Your task to perform on an android device: uninstall "Move to iOS" Image 0: 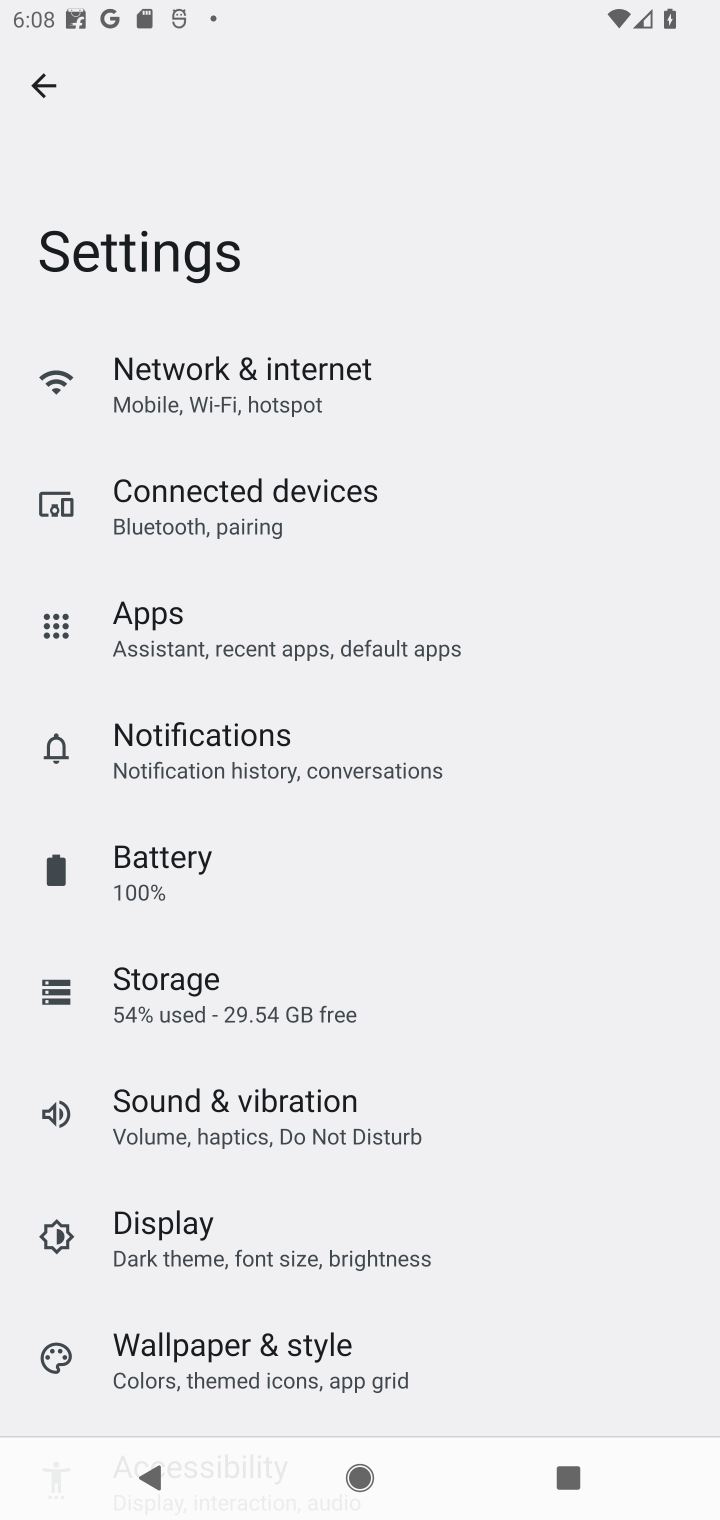
Step 0: press home button
Your task to perform on an android device: uninstall "Move to iOS" Image 1: 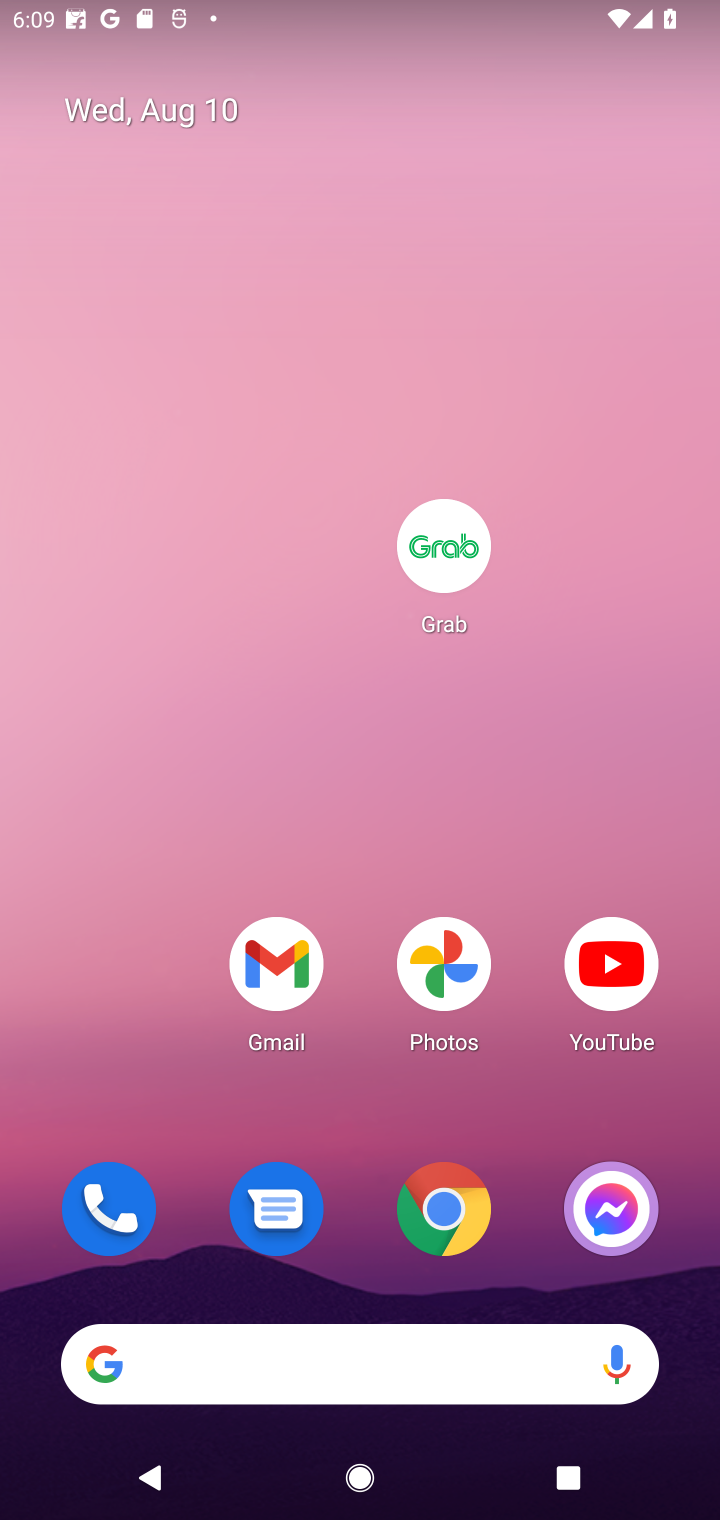
Step 1: drag from (513, 1312) to (267, 6)
Your task to perform on an android device: uninstall "Move to iOS" Image 2: 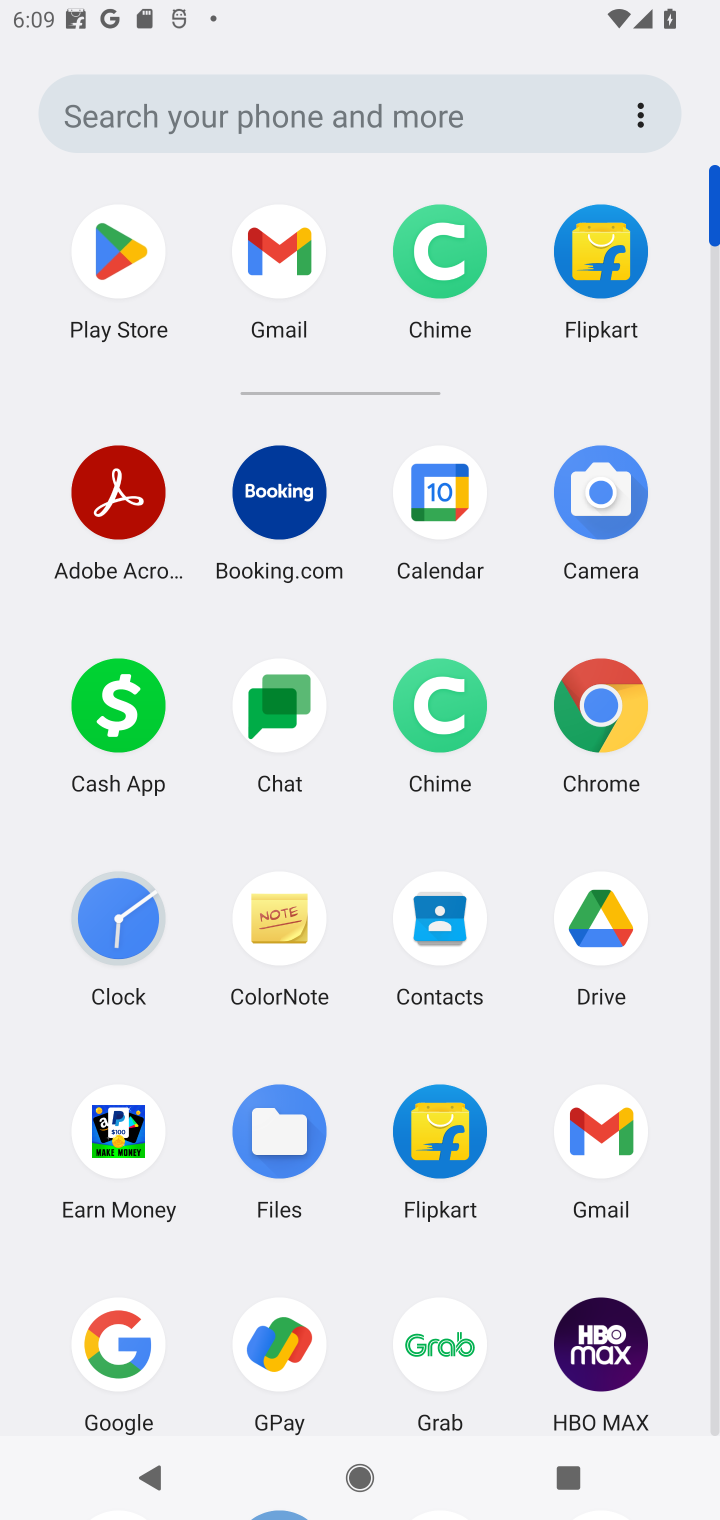
Step 2: click (111, 284)
Your task to perform on an android device: uninstall "Move to iOS" Image 3: 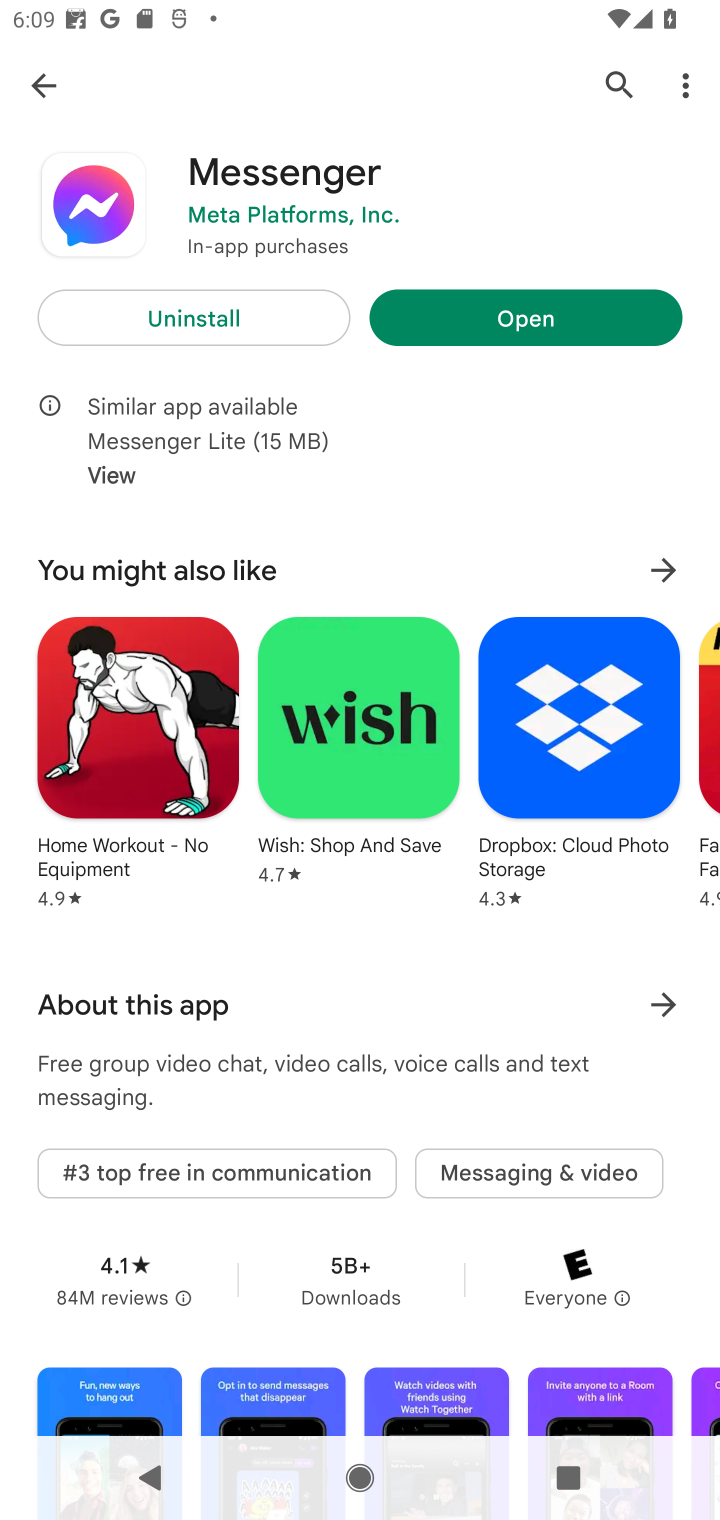
Step 3: click (627, 91)
Your task to perform on an android device: uninstall "Move to iOS" Image 4: 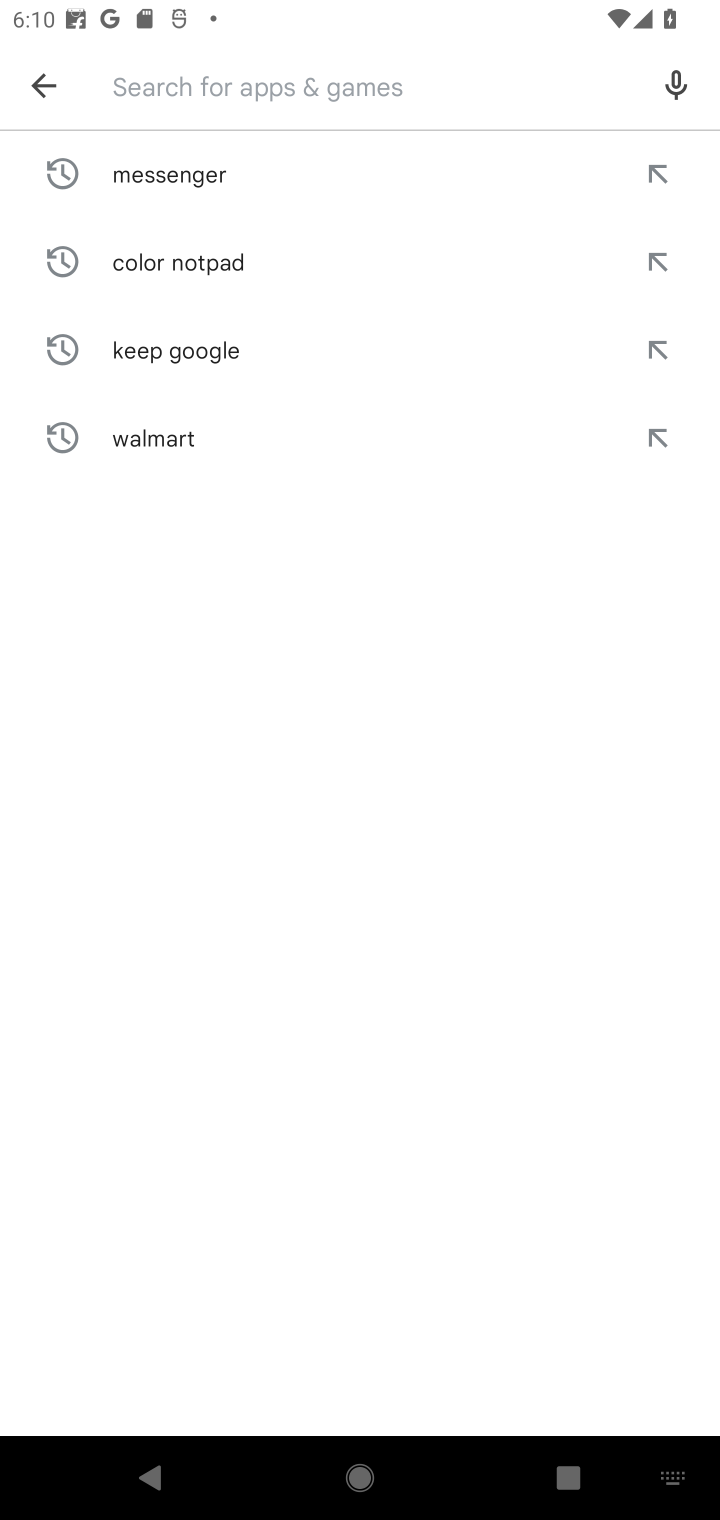
Step 4: type "move to os"
Your task to perform on an android device: uninstall "Move to iOS" Image 5: 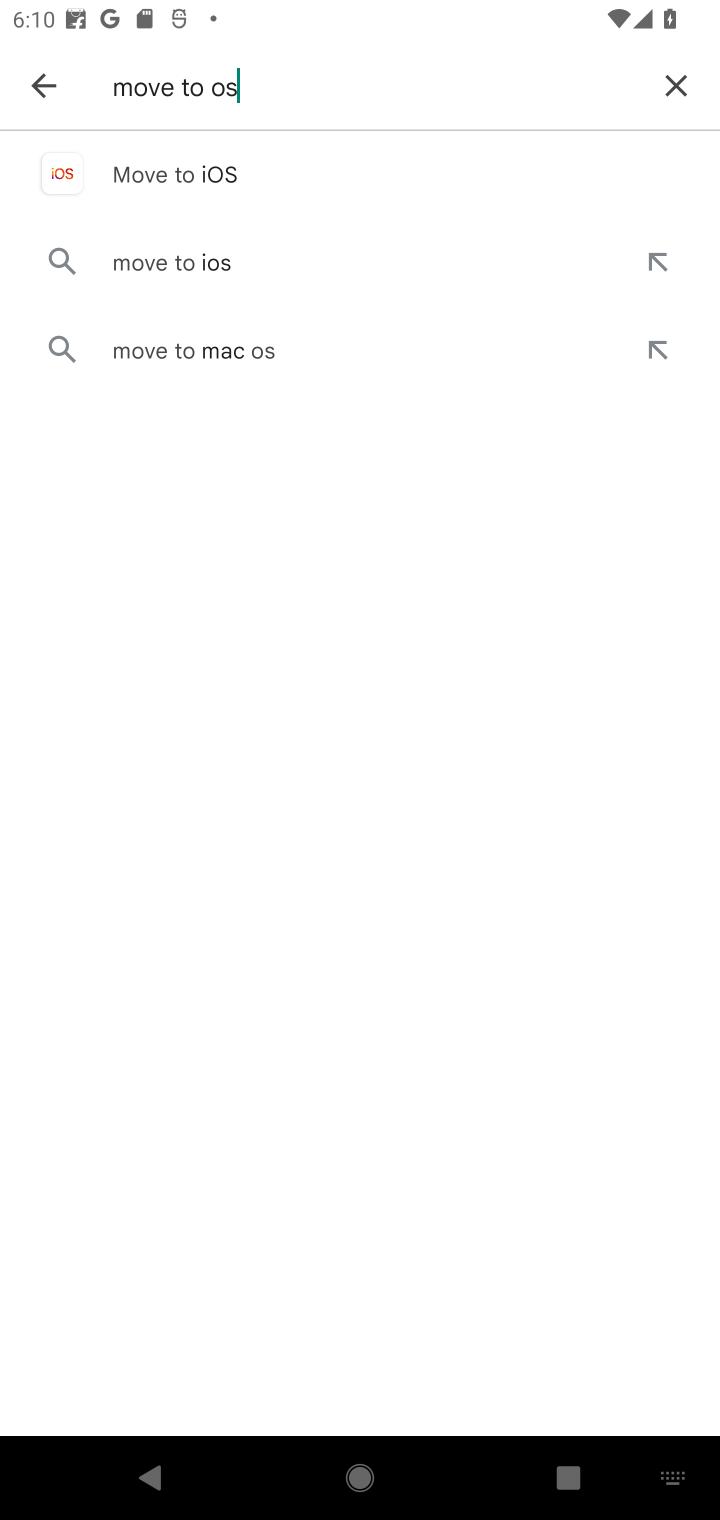
Step 5: click (116, 179)
Your task to perform on an android device: uninstall "Move to iOS" Image 6: 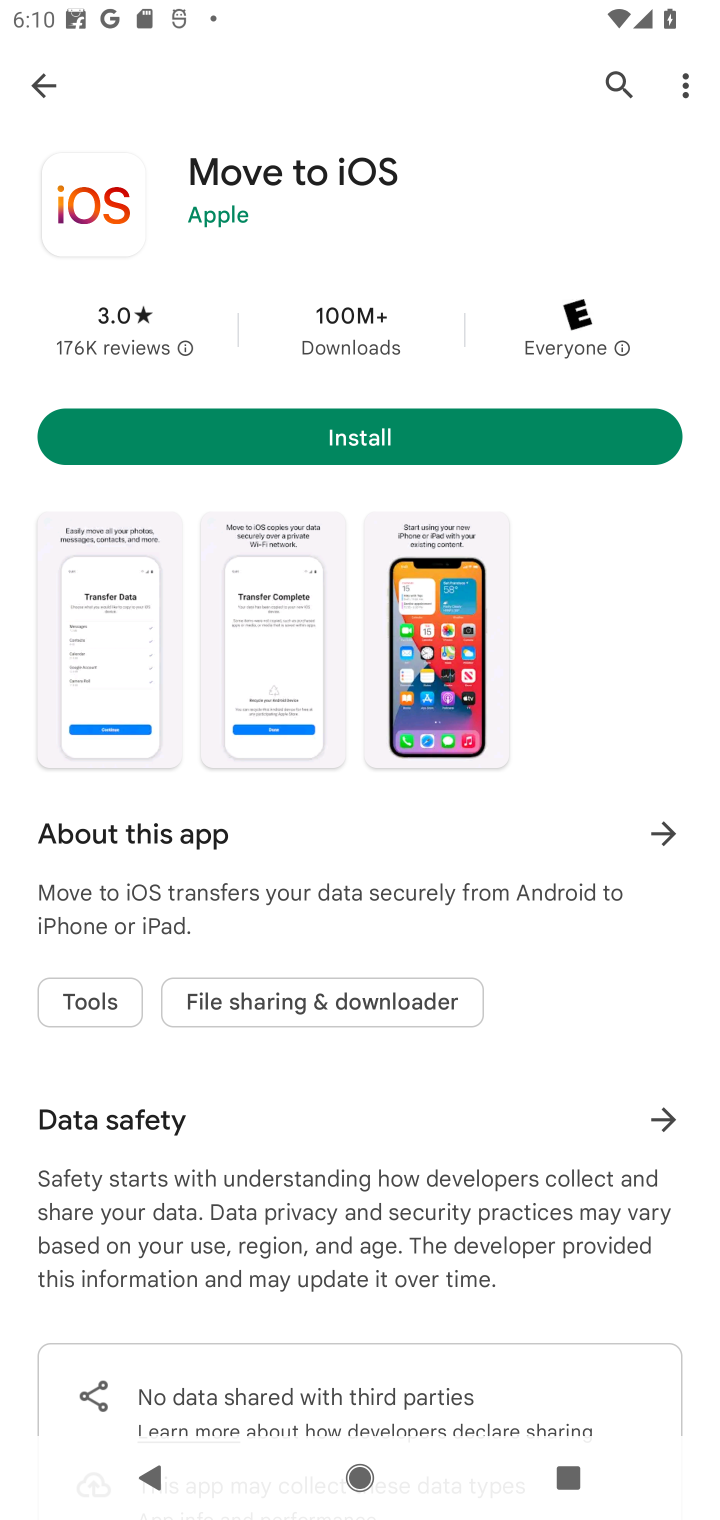
Step 6: click (431, 413)
Your task to perform on an android device: uninstall "Move to iOS" Image 7: 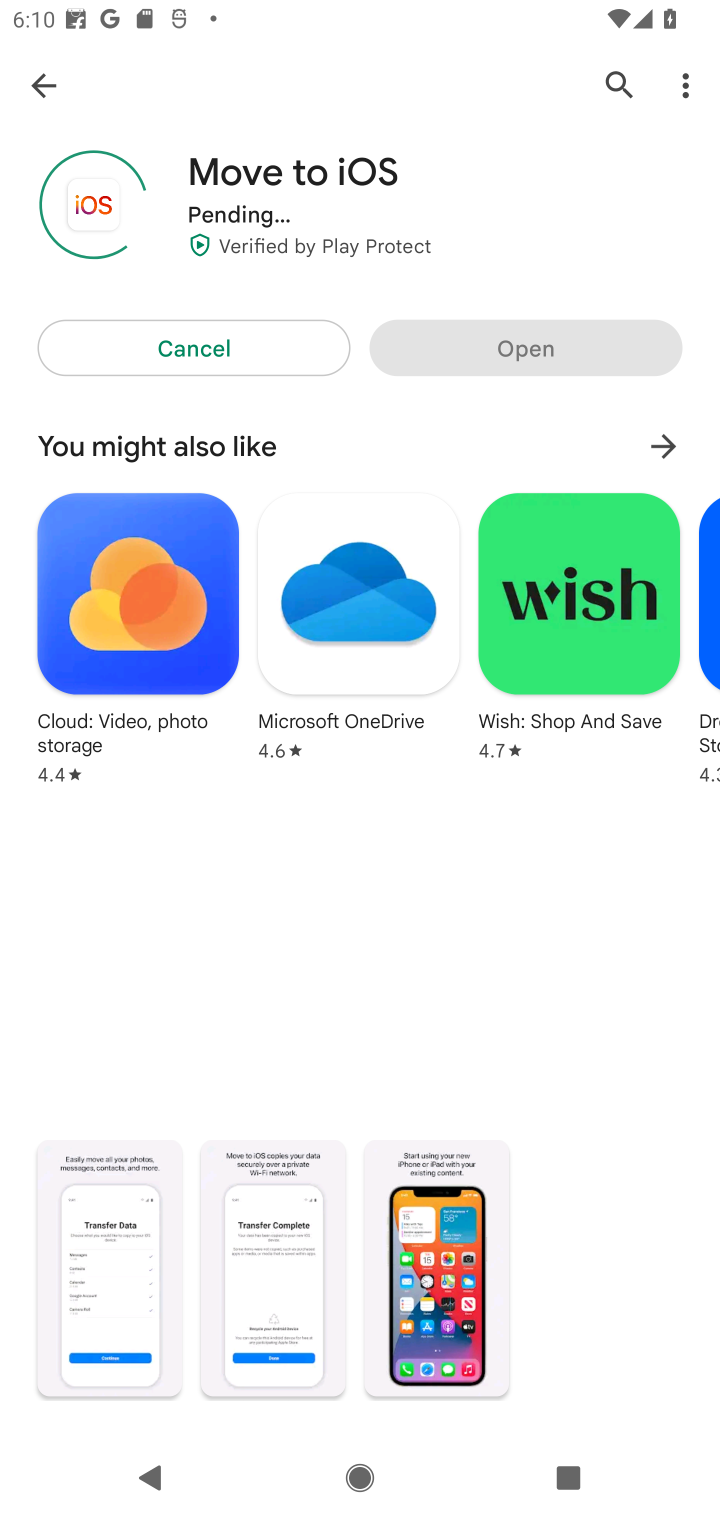
Step 7: task complete